Your task to perform on an android device: change timer sound Image 0: 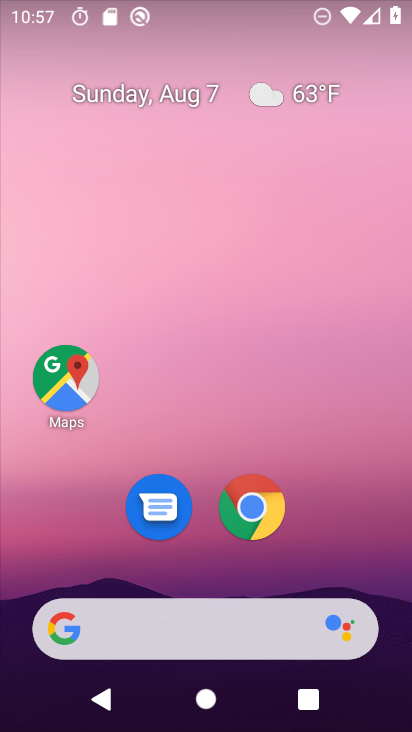
Step 0: drag from (333, 436) to (316, 27)
Your task to perform on an android device: change timer sound Image 1: 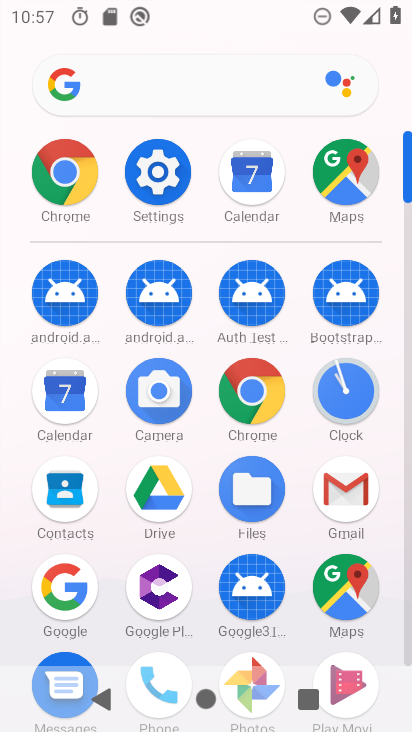
Step 1: click (344, 392)
Your task to perform on an android device: change timer sound Image 2: 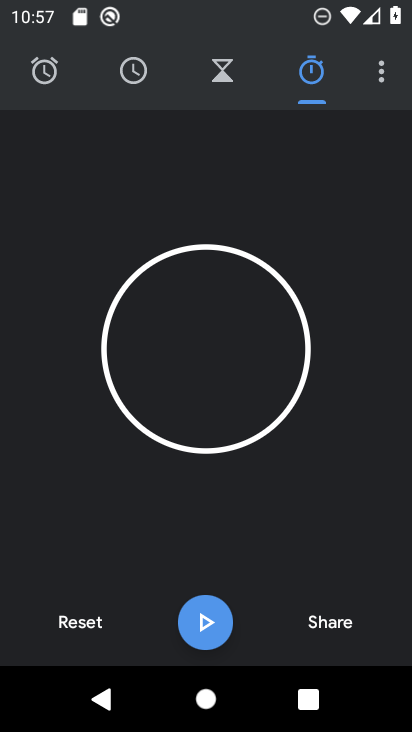
Step 2: click (374, 67)
Your task to perform on an android device: change timer sound Image 3: 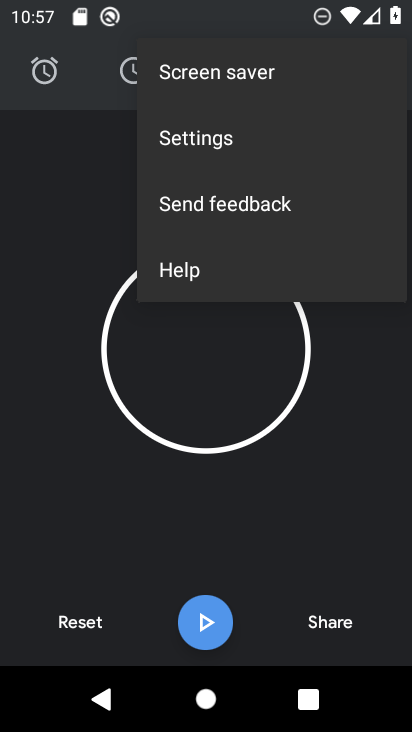
Step 3: click (230, 152)
Your task to perform on an android device: change timer sound Image 4: 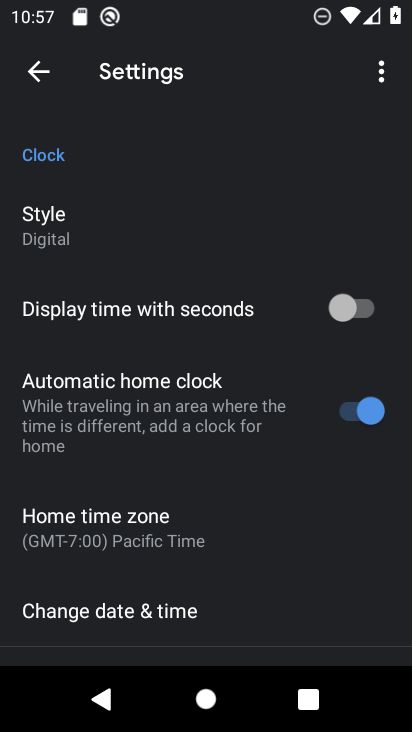
Step 4: drag from (231, 626) to (236, 176)
Your task to perform on an android device: change timer sound Image 5: 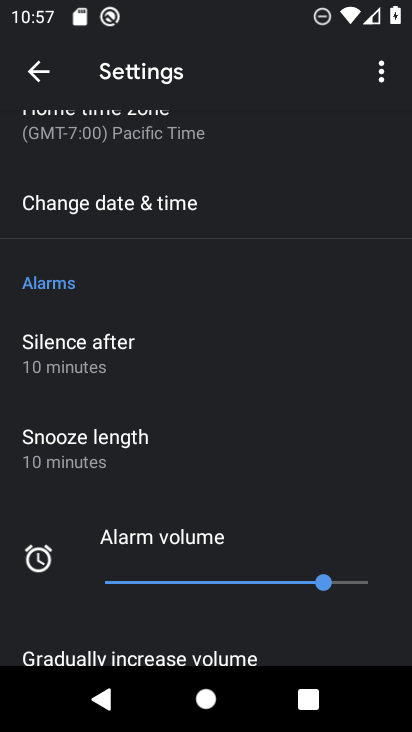
Step 5: drag from (185, 476) to (254, 117)
Your task to perform on an android device: change timer sound Image 6: 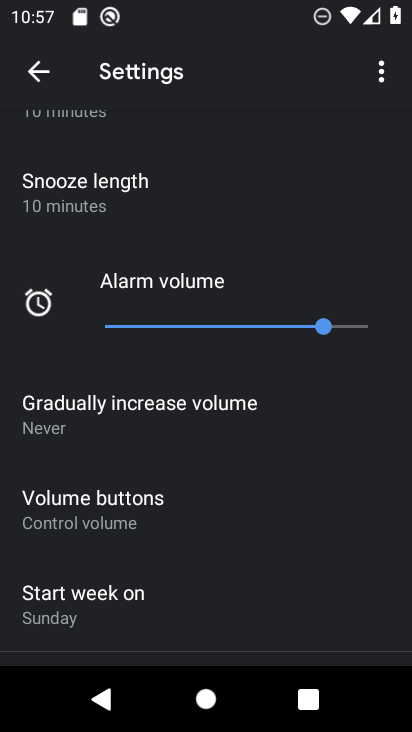
Step 6: drag from (208, 487) to (250, 178)
Your task to perform on an android device: change timer sound Image 7: 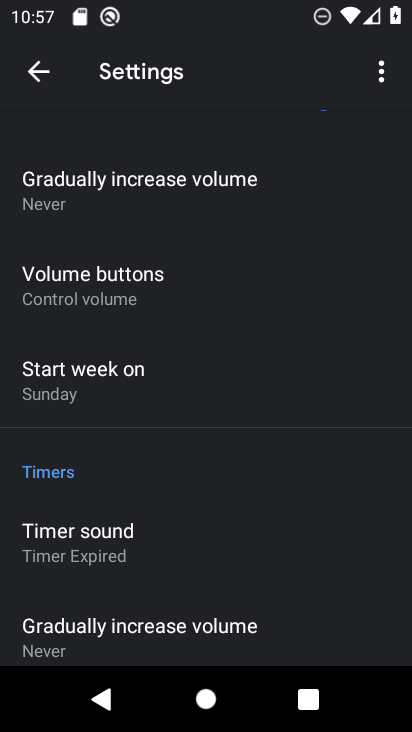
Step 7: click (123, 537)
Your task to perform on an android device: change timer sound Image 8: 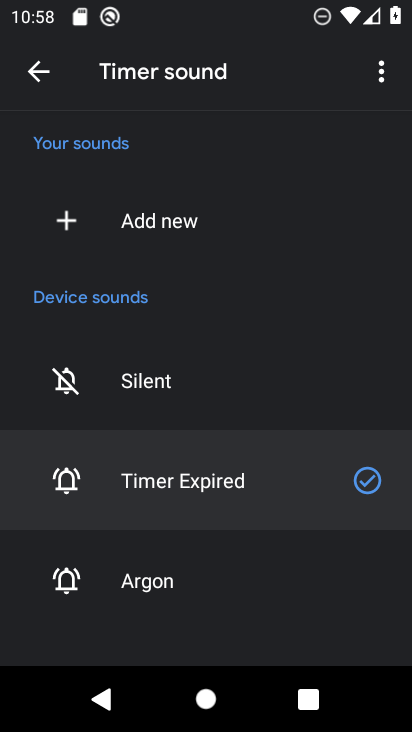
Step 8: click (160, 566)
Your task to perform on an android device: change timer sound Image 9: 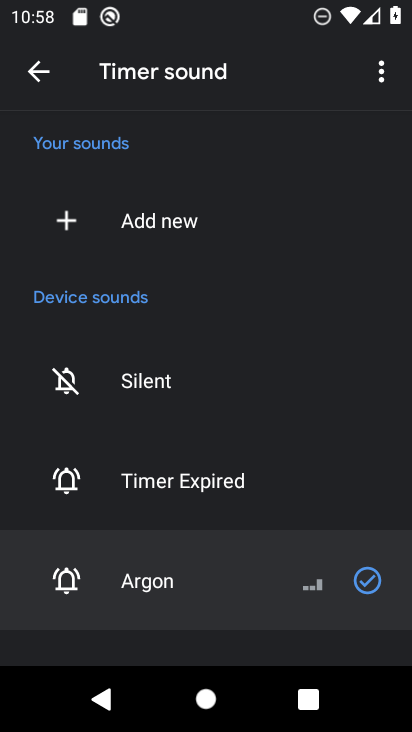
Step 9: task complete